Your task to perform on an android device: Search for seafood restaurants on Google Maps Image 0: 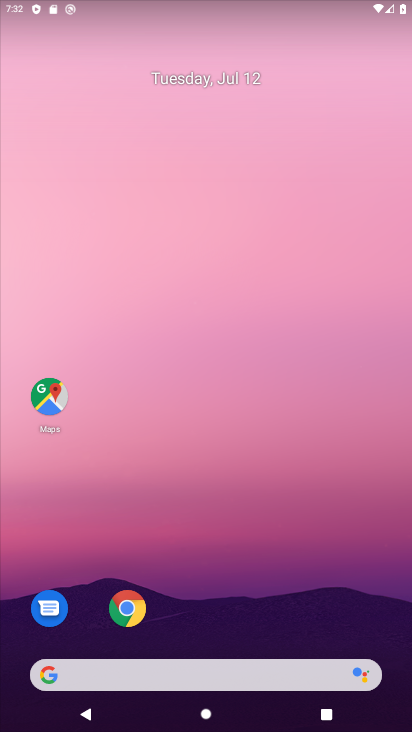
Step 0: drag from (207, 609) to (232, 80)
Your task to perform on an android device: Search for seafood restaurants on Google Maps Image 1: 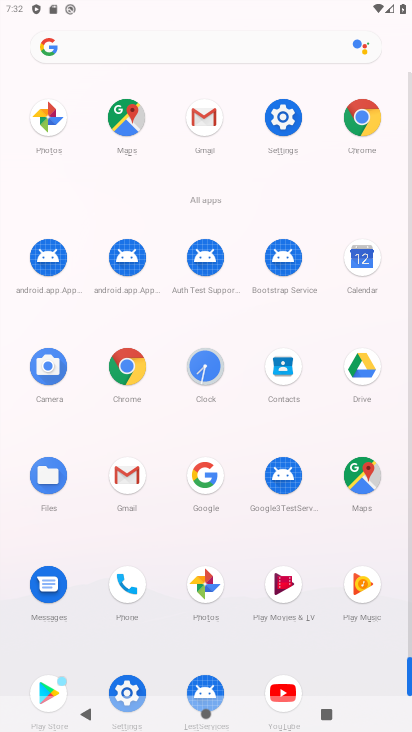
Step 1: click (125, 119)
Your task to perform on an android device: Search for seafood restaurants on Google Maps Image 2: 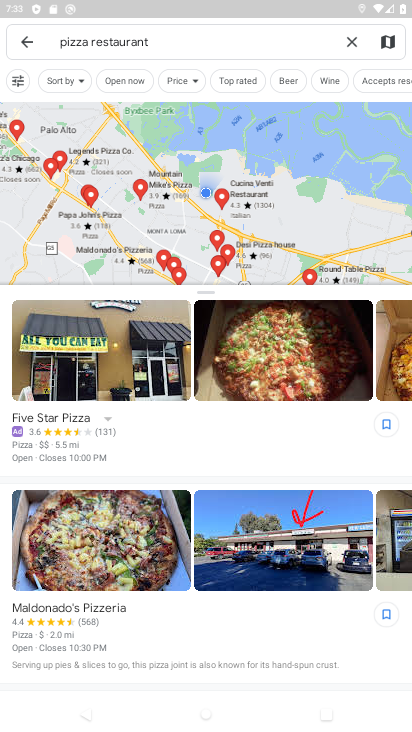
Step 2: click (356, 39)
Your task to perform on an android device: Search for seafood restaurants on Google Maps Image 3: 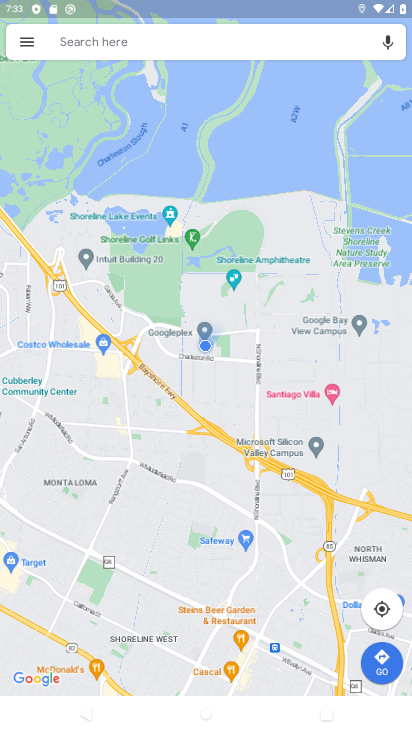
Step 3: click (227, 36)
Your task to perform on an android device: Search for seafood restaurants on Google Maps Image 4: 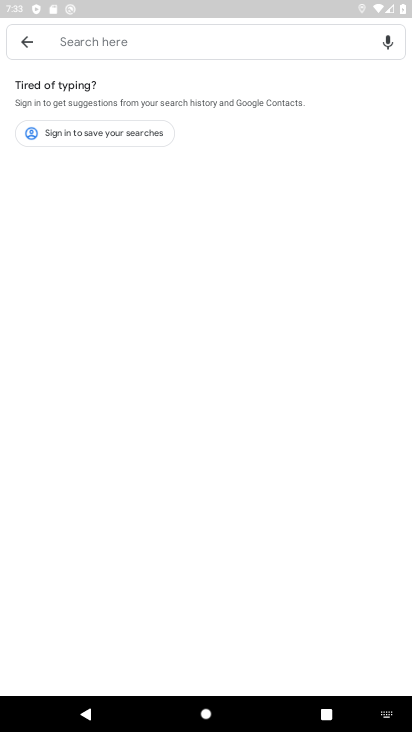
Step 4: type " seafood restaurants "
Your task to perform on an android device: Search for seafood restaurants on Google Maps Image 5: 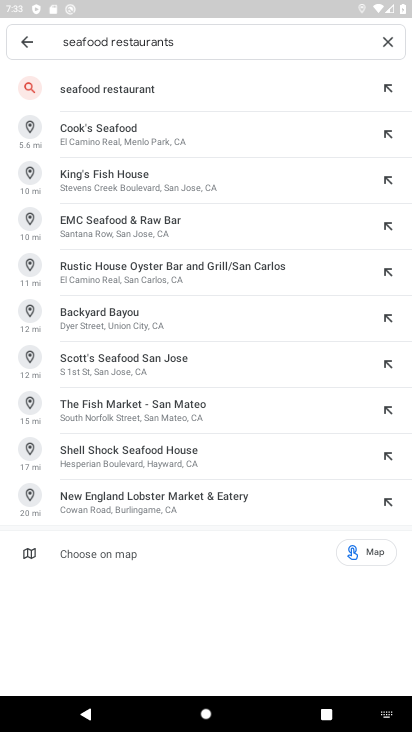
Step 5: click (93, 87)
Your task to perform on an android device: Search for seafood restaurants on Google Maps Image 6: 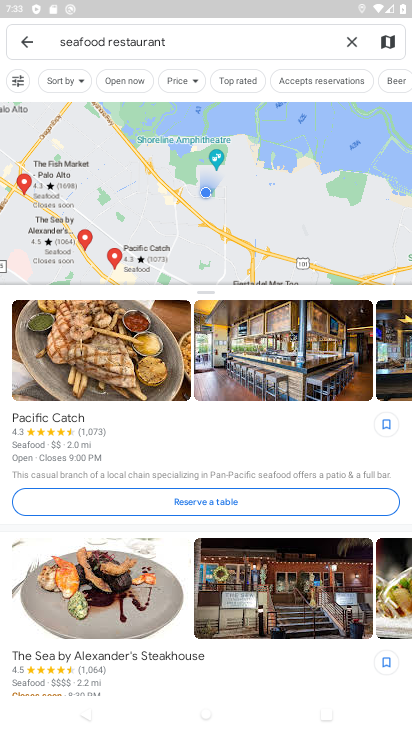
Step 6: task complete